Your task to perform on an android device: delete a single message in the gmail app Image 0: 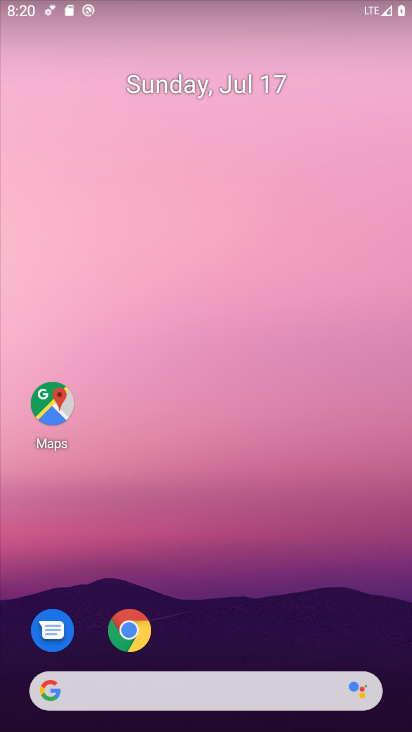
Step 0: drag from (197, 637) to (180, 38)
Your task to perform on an android device: delete a single message in the gmail app Image 1: 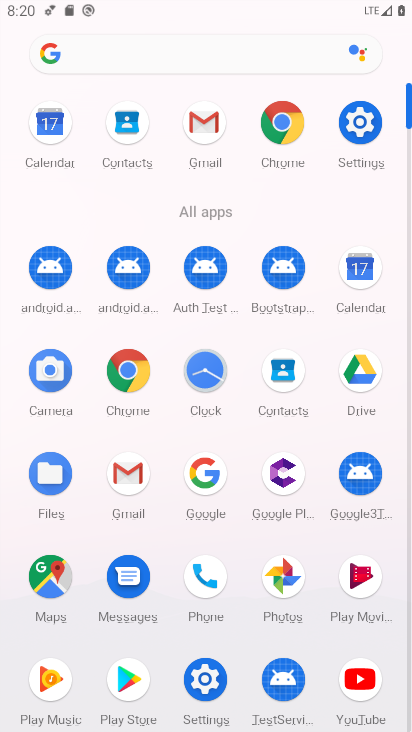
Step 1: click (126, 503)
Your task to perform on an android device: delete a single message in the gmail app Image 2: 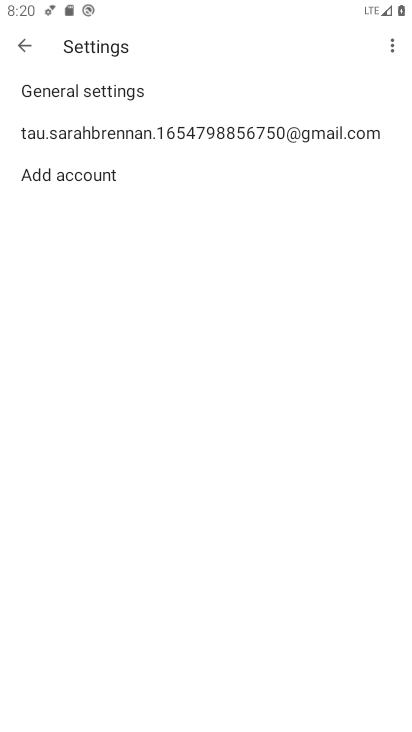
Step 2: click (24, 44)
Your task to perform on an android device: delete a single message in the gmail app Image 3: 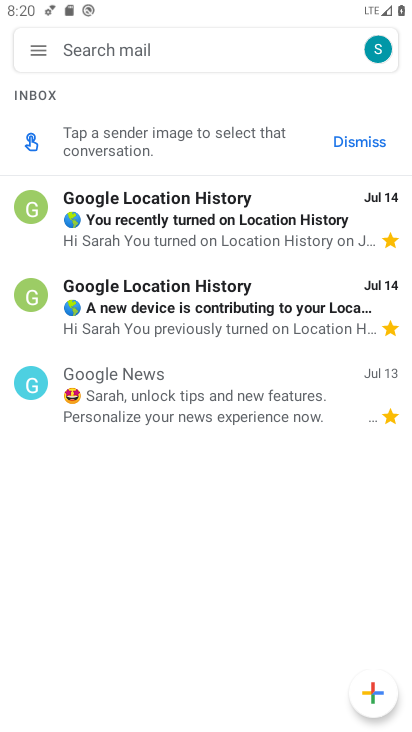
Step 3: click (30, 213)
Your task to perform on an android device: delete a single message in the gmail app Image 4: 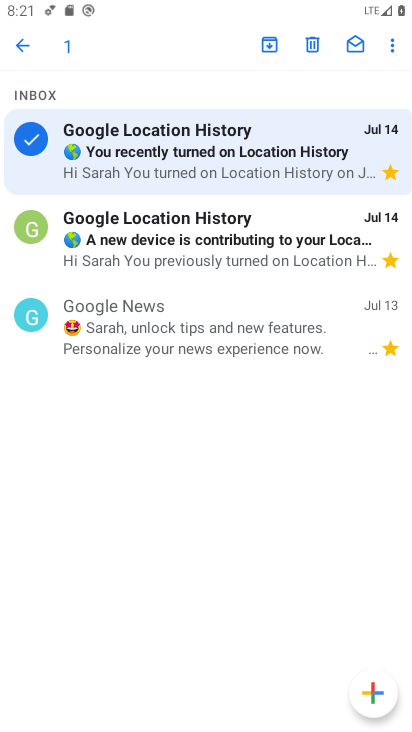
Step 4: click (313, 52)
Your task to perform on an android device: delete a single message in the gmail app Image 5: 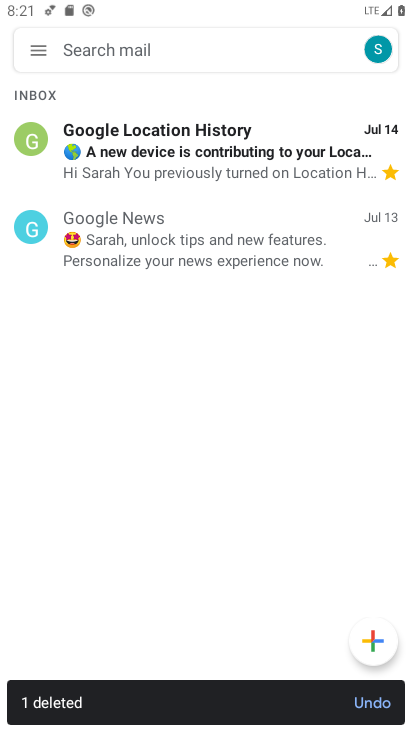
Step 5: task complete